Your task to perform on an android device: Go to privacy settings Image 0: 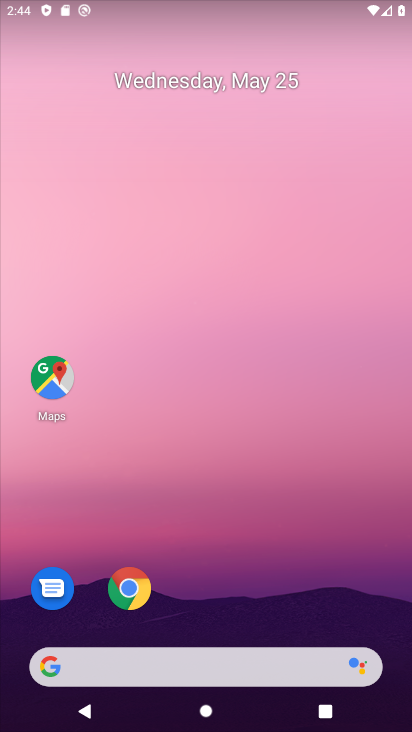
Step 0: drag from (394, 649) to (402, 40)
Your task to perform on an android device: Go to privacy settings Image 1: 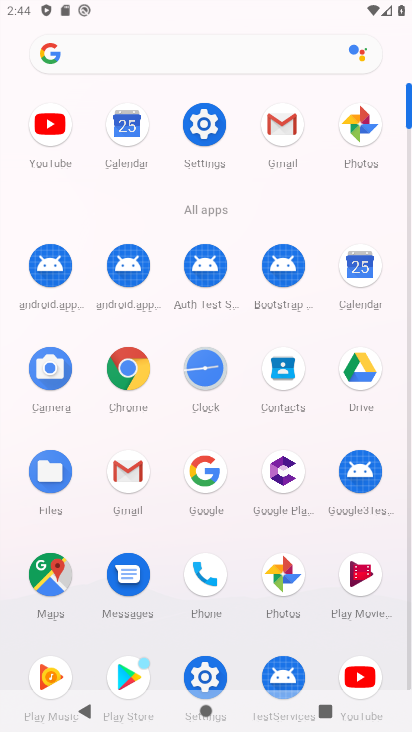
Step 1: click (198, 676)
Your task to perform on an android device: Go to privacy settings Image 2: 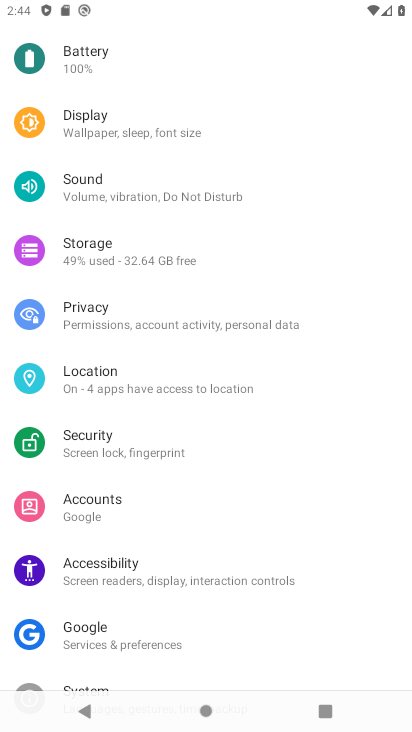
Step 2: click (103, 319)
Your task to perform on an android device: Go to privacy settings Image 3: 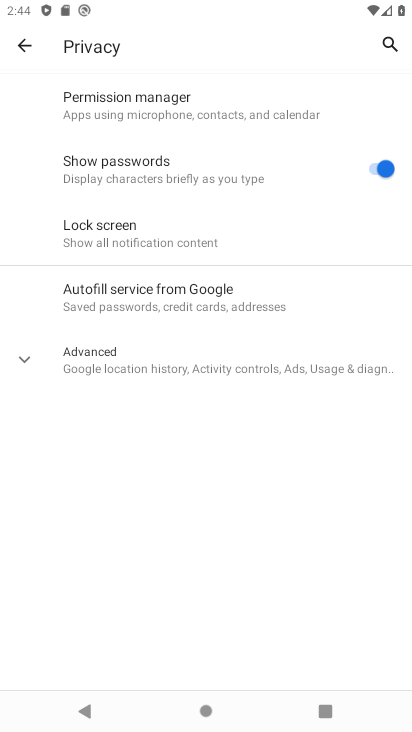
Step 3: task complete